Your task to perform on an android device: find snoozed emails in the gmail app Image 0: 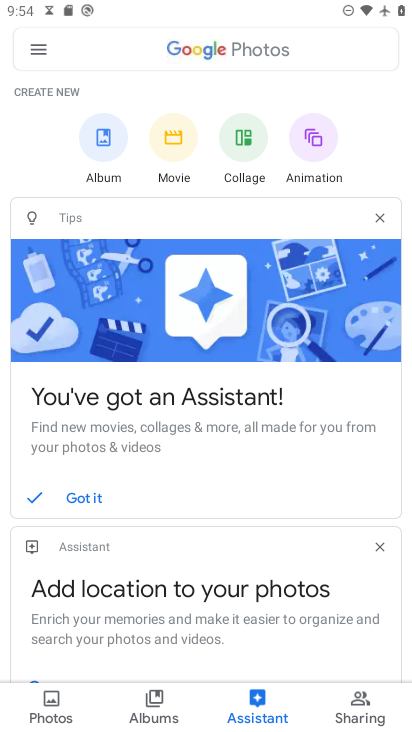
Step 0: press home button
Your task to perform on an android device: find snoozed emails in the gmail app Image 1: 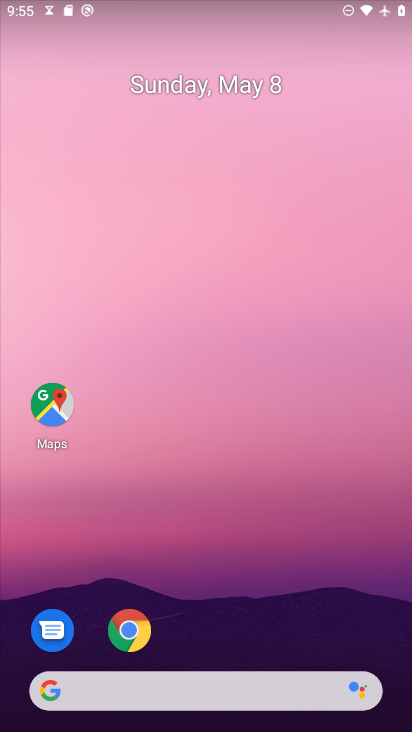
Step 1: drag from (156, 670) to (266, 203)
Your task to perform on an android device: find snoozed emails in the gmail app Image 2: 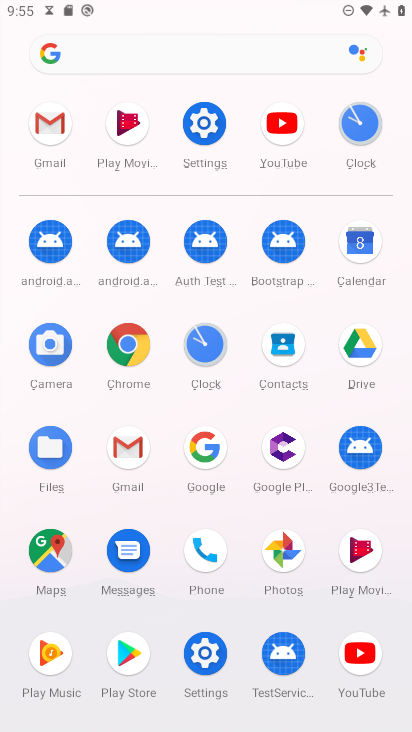
Step 2: click (55, 123)
Your task to perform on an android device: find snoozed emails in the gmail app Image 3: 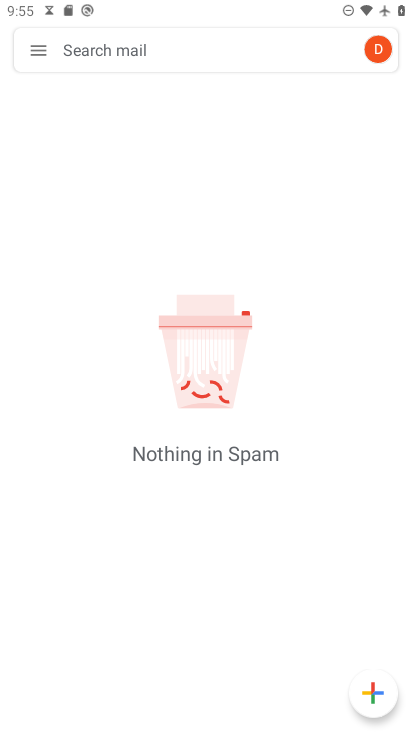
Step 3: click (41, 39)
Your task to perform on an android device: find snoozed emails in the gmail app Image 4: 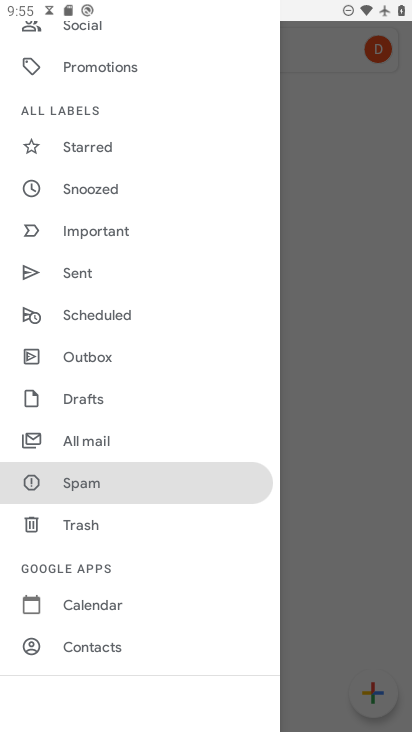
Step 4: click (107, 196)
Your task to perform on an android device: find snoozed emails in the gmail app Image 5: 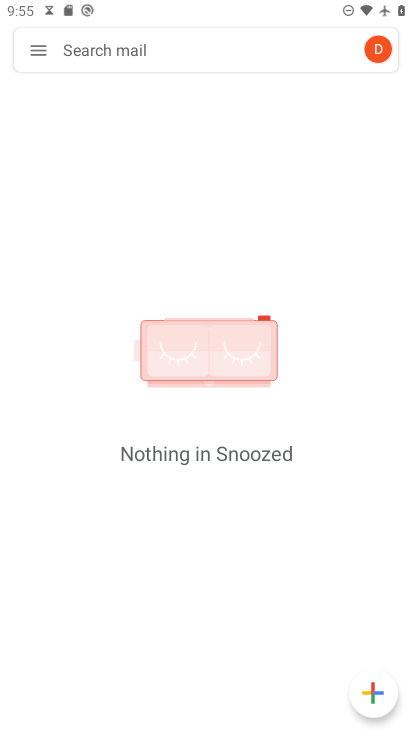
Step 5: task complete